Your task to perform on an android device: open app "Facebook Lite" (install if not already installed), go to login, and select forgot password Image 0: 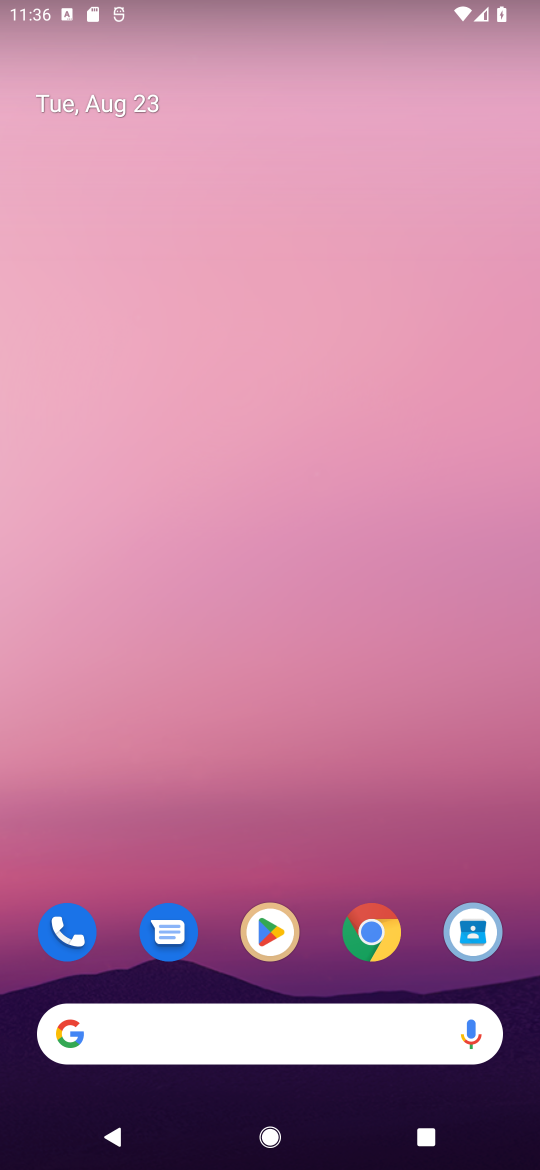
Step 0: click (262, 929)
Your task to perform on an android device: open app "Facebook Lite" (install if not already installed), go to login, and select forgot password Image 1: 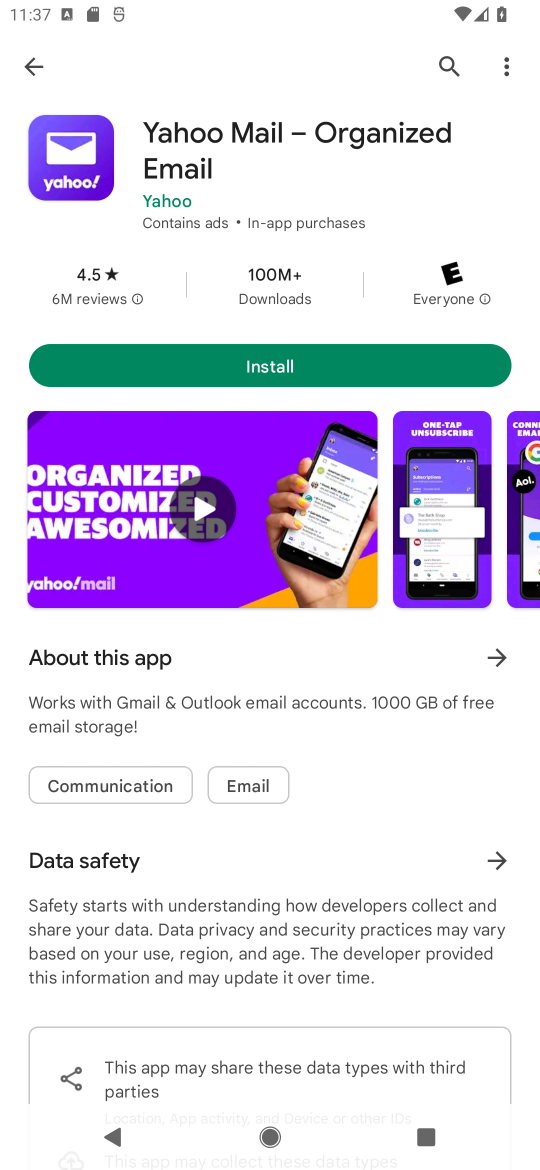
Step 1: click (447, 61)
Your task to perform on an android device: open app "Facebook Lite" (install if not already installed), go to login, and select forgot password Image 2: 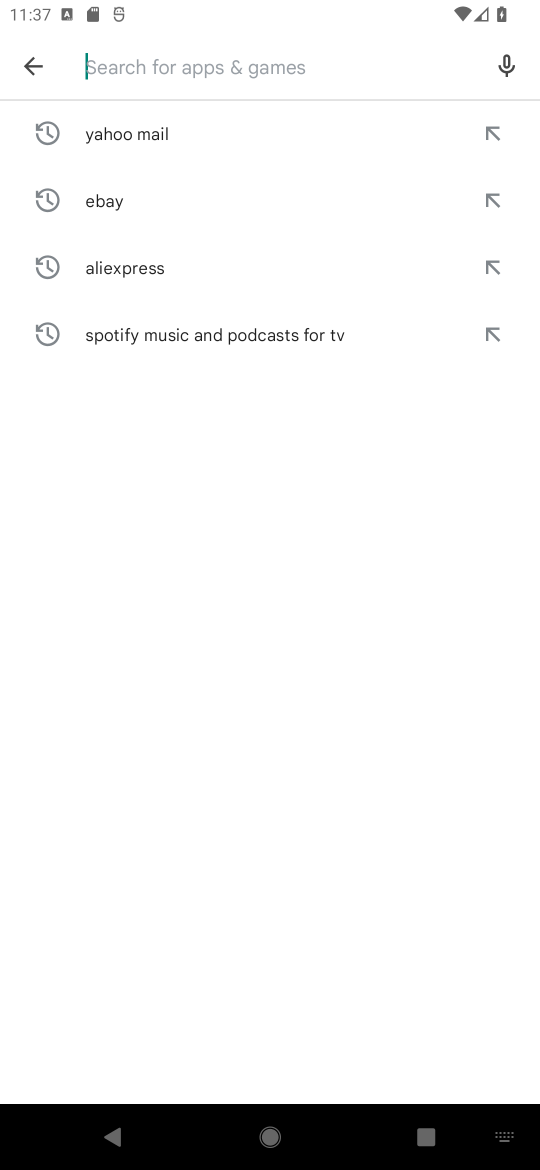
Step 2: click (221, 58)
Your task to perform on an android device: open app "Facebook Lite" (install if not already installed), go to login, and select forgot password Image 3: 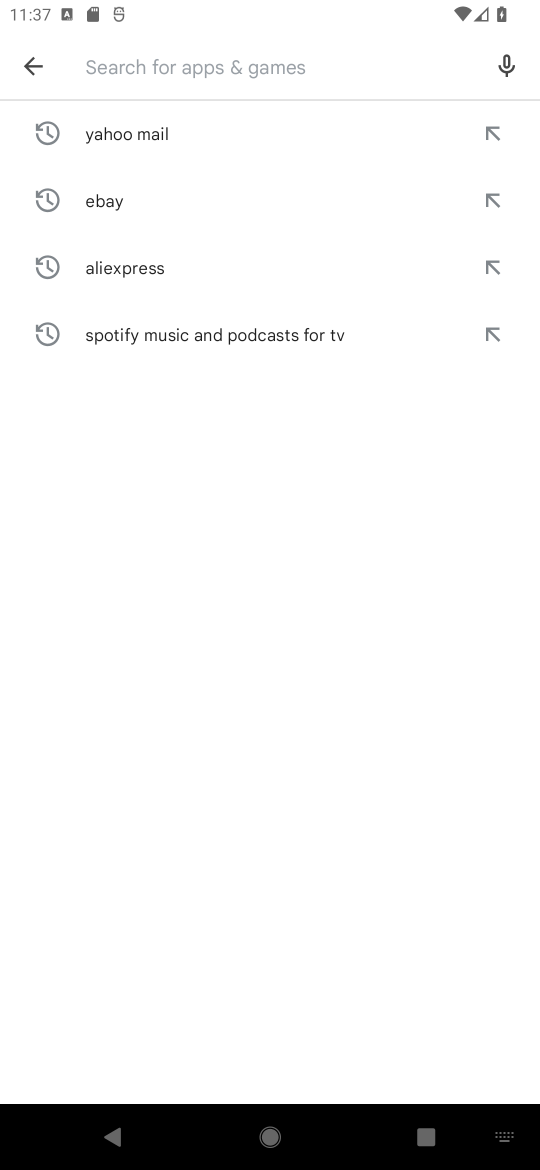
Step 3: type "Facebook Lite"
Your task to perform on an android device: open app "Facebook Lite" (install if not already installed), go to login, and select forgot password Image 4: 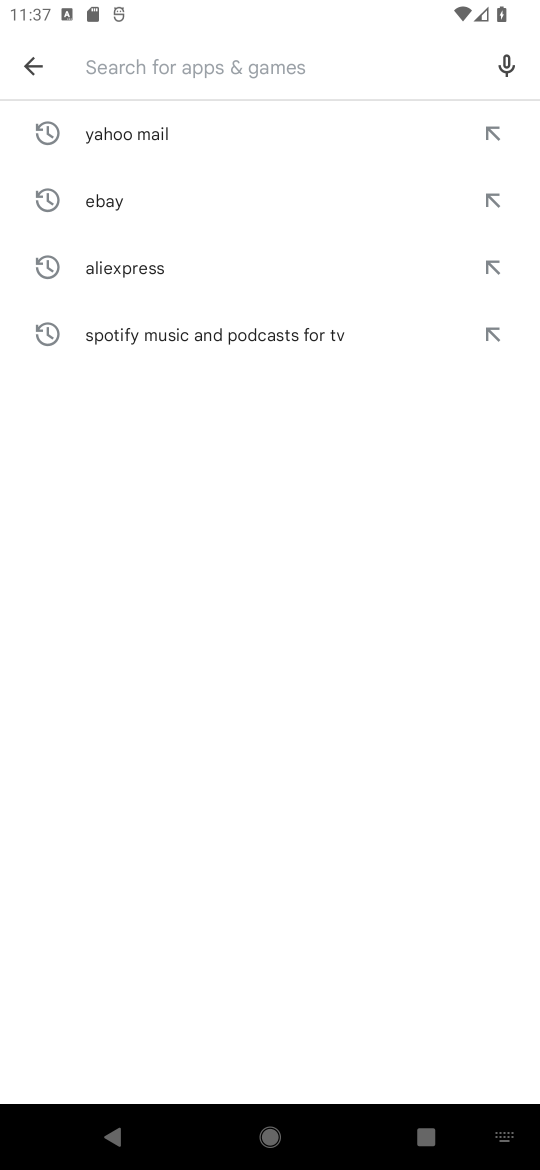
Step 4: click (280, 778)
Your task to perform on an android device: open app "Facebook Lite" (install if not already installed), go to login, and select forgot password Image 5: 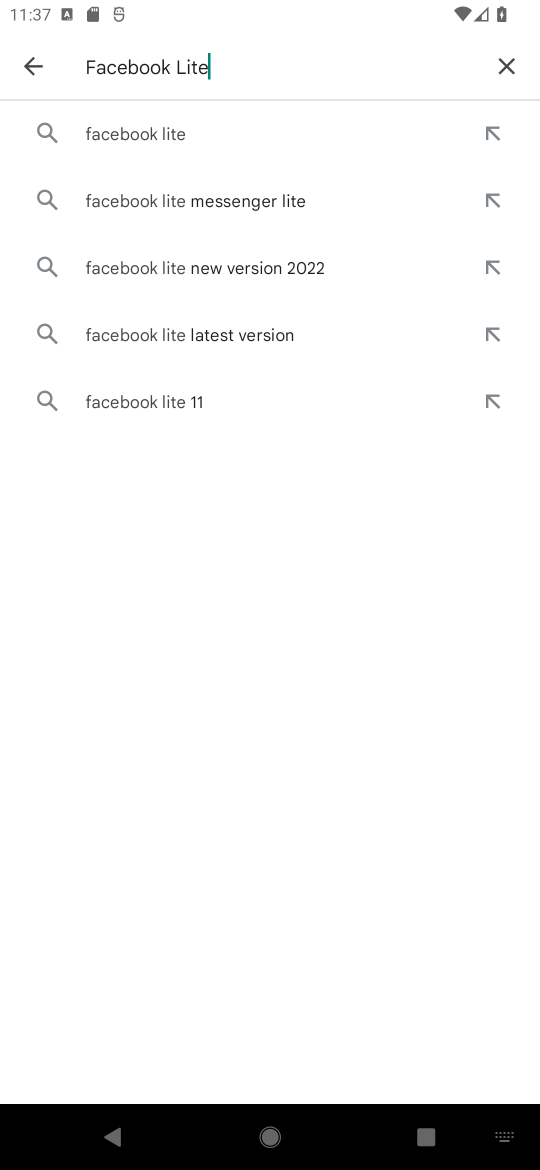
Step 5: click (160, 130)
Your task to perform on an android device: open app "Facebook Lite" (install if not already installed), go to login, and select forgot password Image 6: 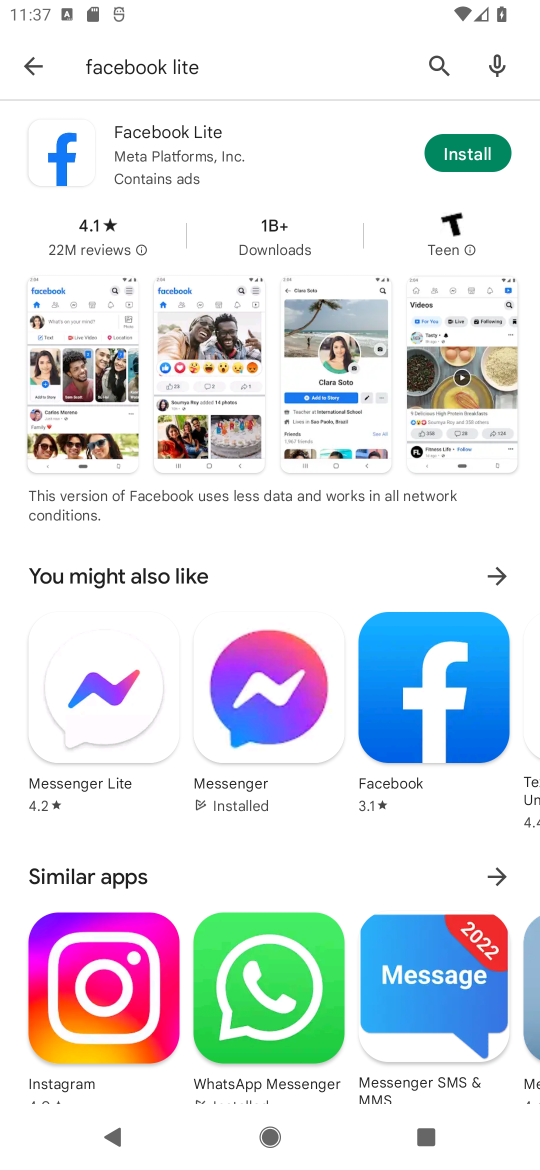
Step 6: click (461, 145)
Your task to perform on an android device: open app "Facebook Lite" (install if not already installed), go to login, and select forgot password Image 7: 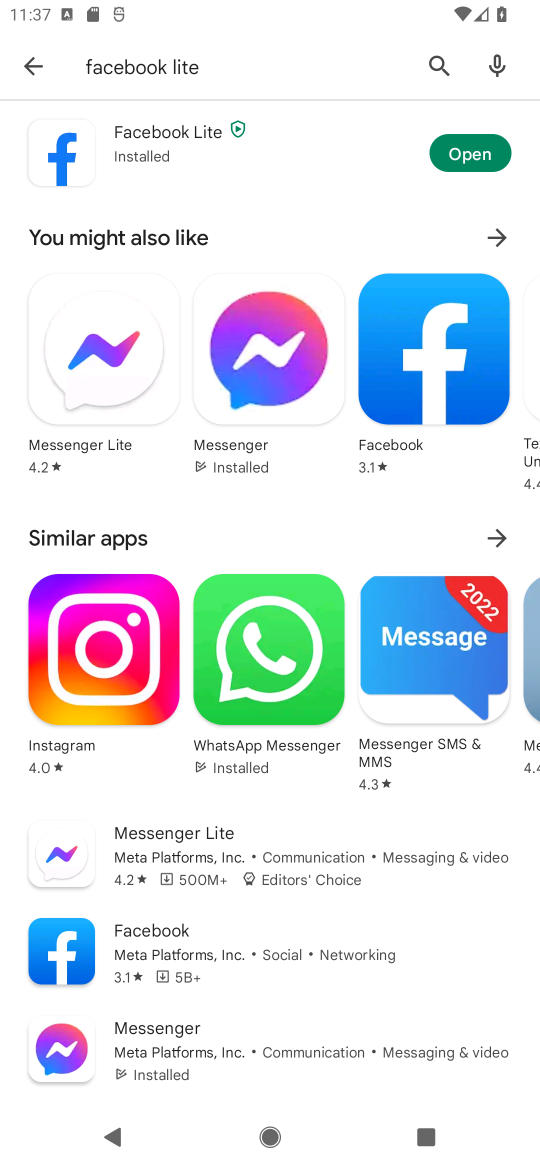
Step 7: click (456, 145)
Your task to perform on an android device: open app "Facebook Lite" (install if not already installed), go to login, and select forgot password Image 8: 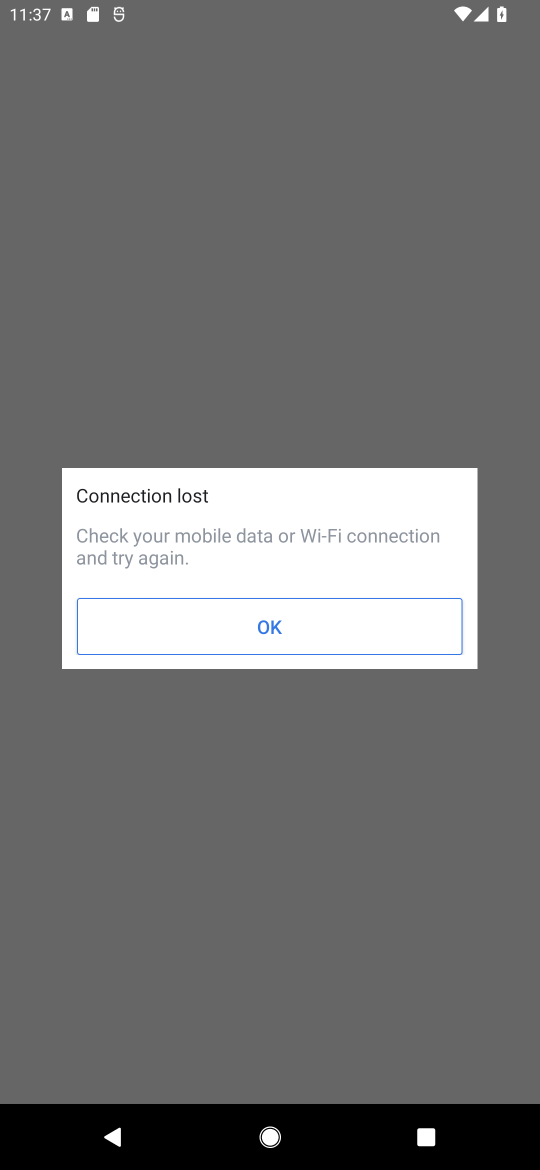
Step 8: click (292, 613)
Your task to perform on an android device: open app "Facebook Lite" (install if not already installed), go to login, and select forgot password Image 9: 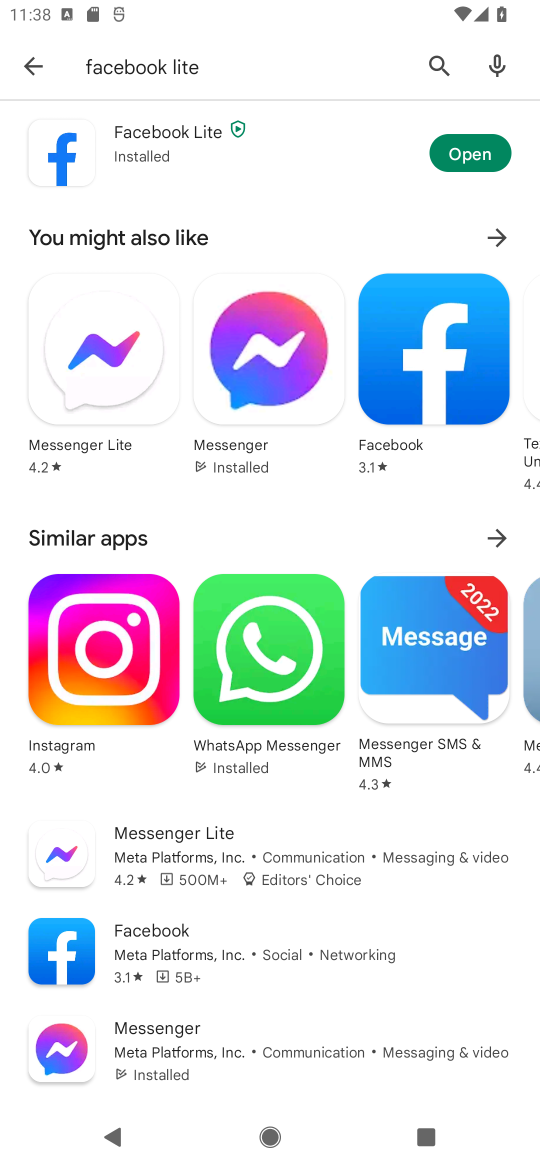
Step 9: task complete